Your task to perform on an android device: What's the weather today? Image 0: 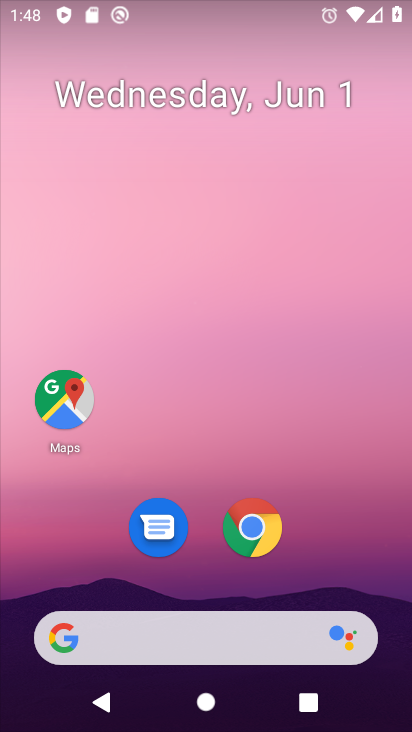
Step 0: drag from (372, 573) to (268, 146)
Your task to perform on an android device: What's the weather today? Image 1: 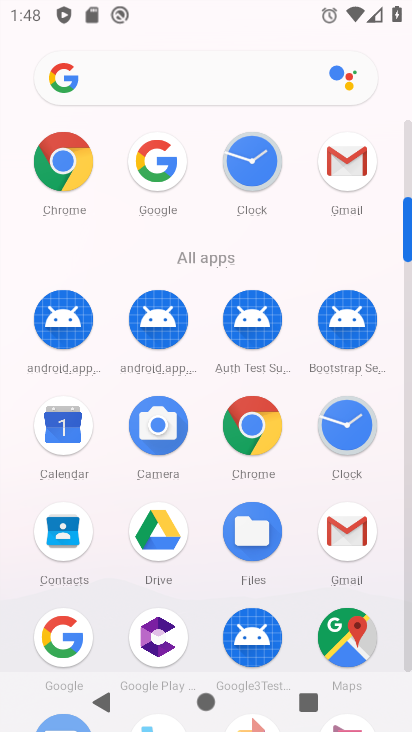
Step 1: click (70, 162)
Your task to perform on an android device: What's the weather today? Image 2: 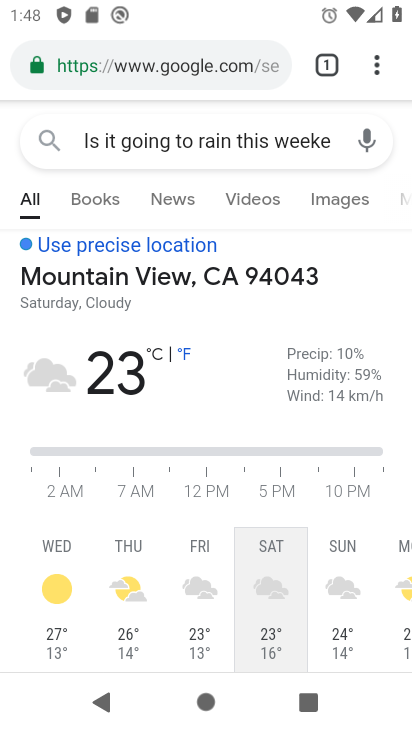
Step 2: click (216, 60)
Your task to perform on an android device: What's the weather today? Image 3: 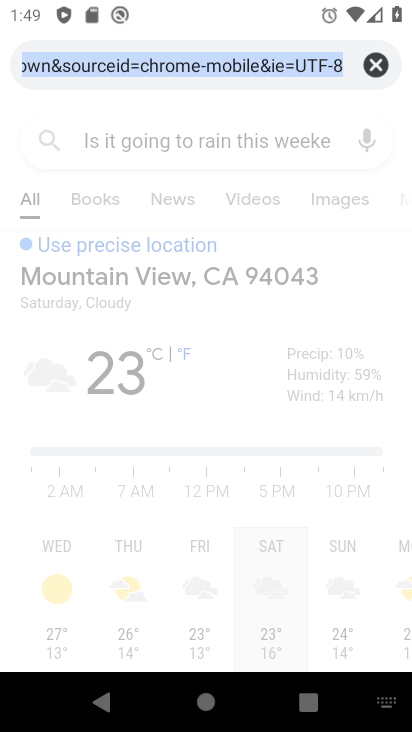
Step 3: type "What's the weather today?"
Your task to perform on an android device: What's the weather today? Image 4: 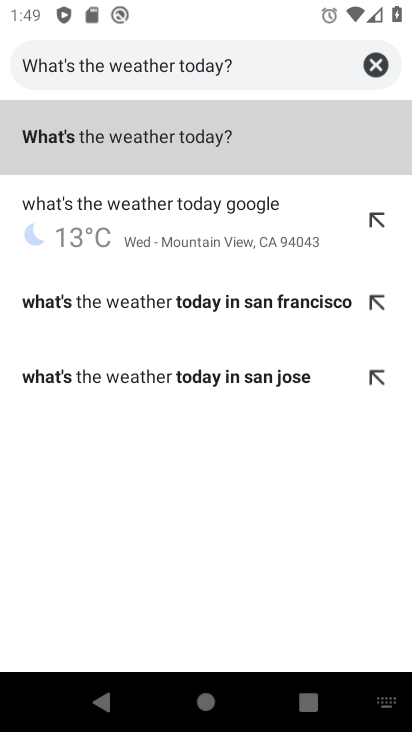
Step 4: click (239, 130)
Your task to perform on an android device: What's the weather today? Image 5: 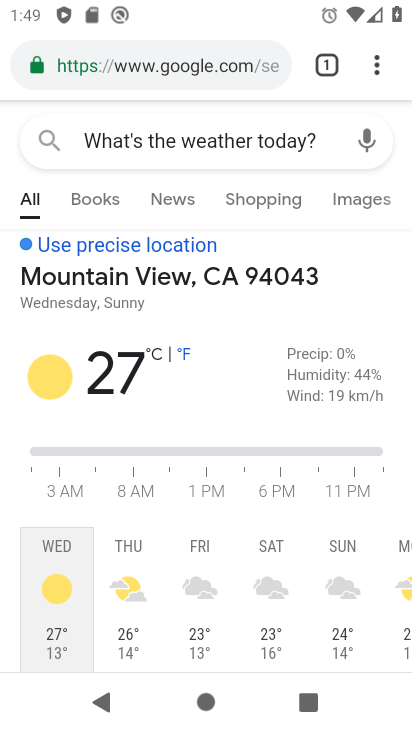
Step 5: task complete